Your task to perform on an android device: show emergency info Image 0: 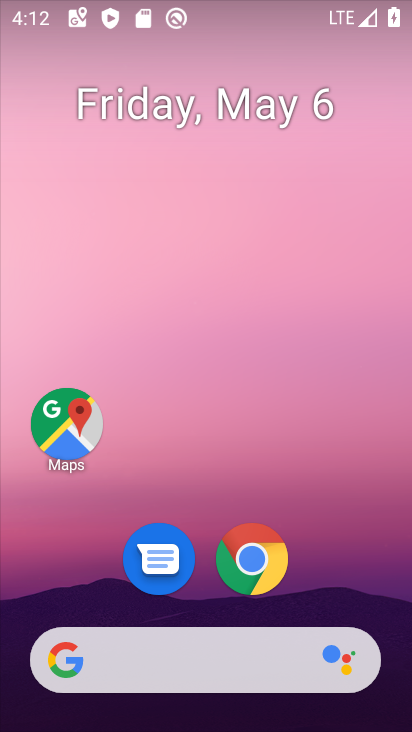
Step 0: drag from (215, 622) to (238, 258)
Your task to perform on an android device: show emergency info Image 1: 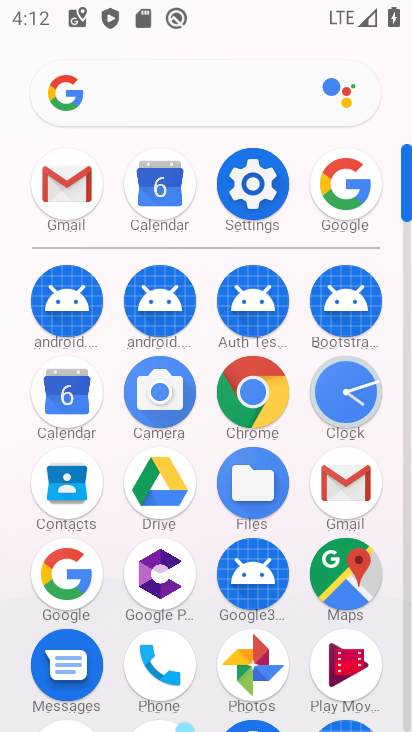
Step 1: drag from (109, 727) to (95, 360)
Your task to perform on an android device: show emergency info Image 2: 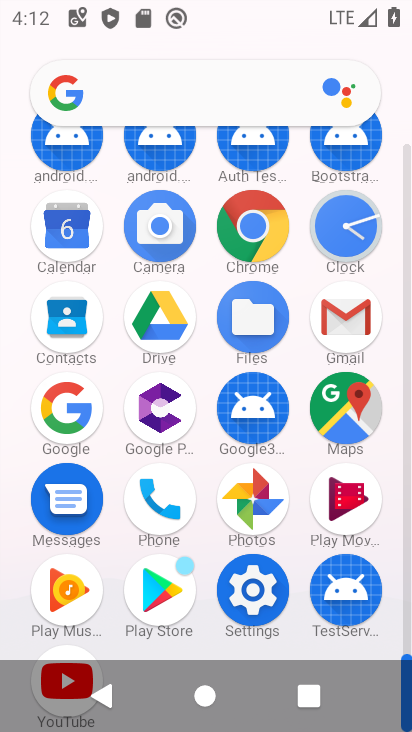
Step 2: click (235, 606)
Your task to perform on an android device: show emergency info Image 3: 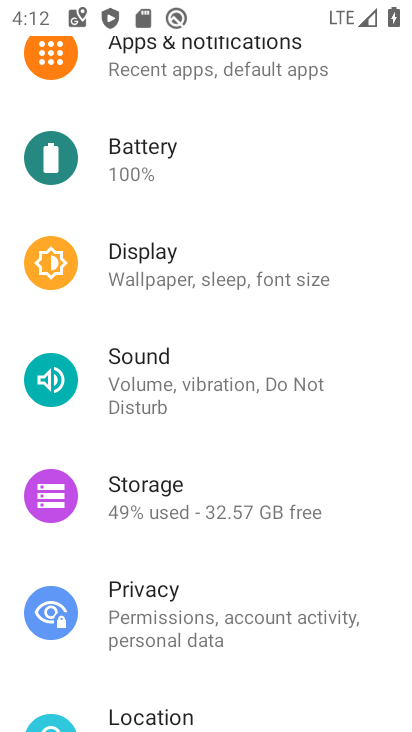
Step 3: drag from (233, 706) to (255, 289)
Your task to perform on an android device: show emergency info Image 4: 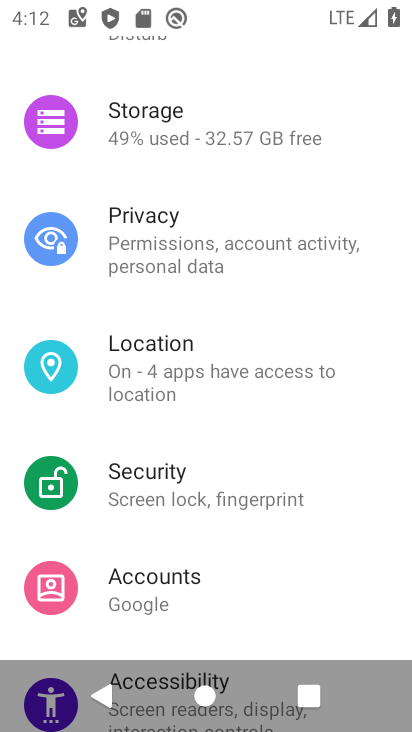
Step 4: drag from (242, 593) to (281, 160)
Your task to perform on an android device: show emergency info Image 5: 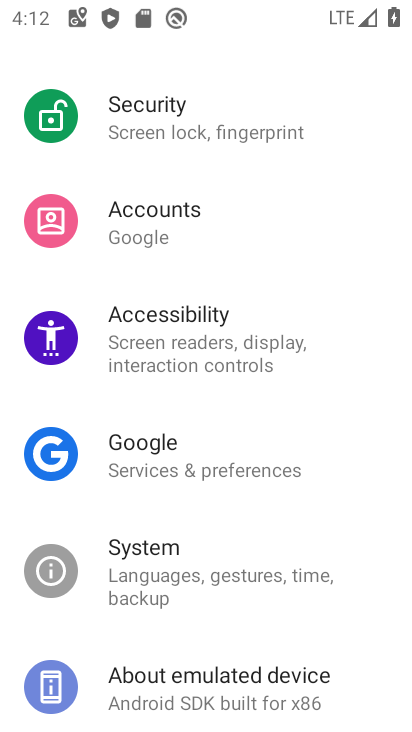
Step 5: drag from (196, 556) to (237, 266)
Your task to perform on an android device: show emergency info Image 6: 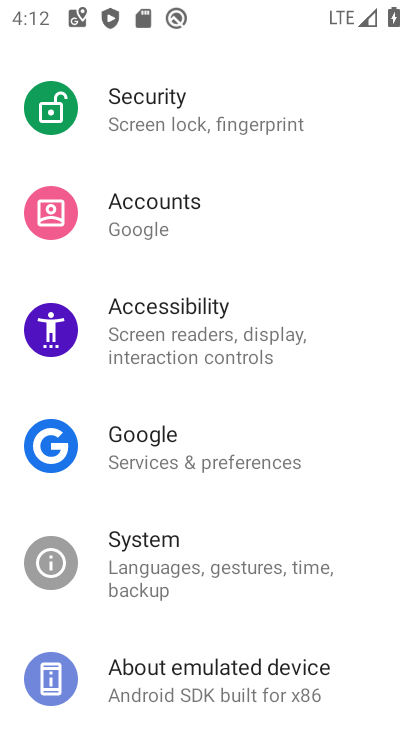
Step 6: click (193, 678)
Your task to perform on an android device: show emergency info Image 7: 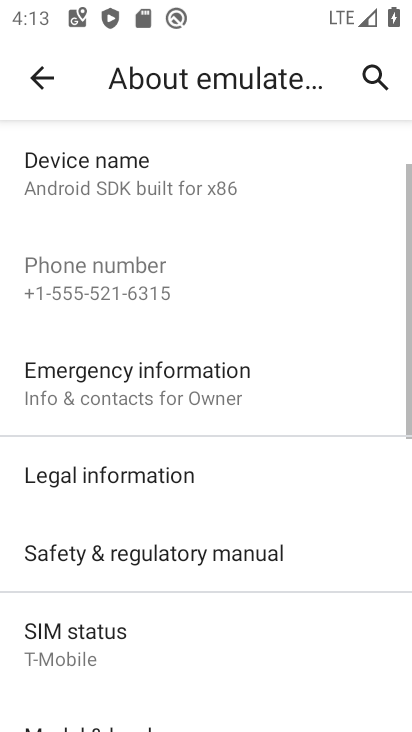
Step 7: click (202, 377)
Your task to perform on an android device: show emergency info Image 8: 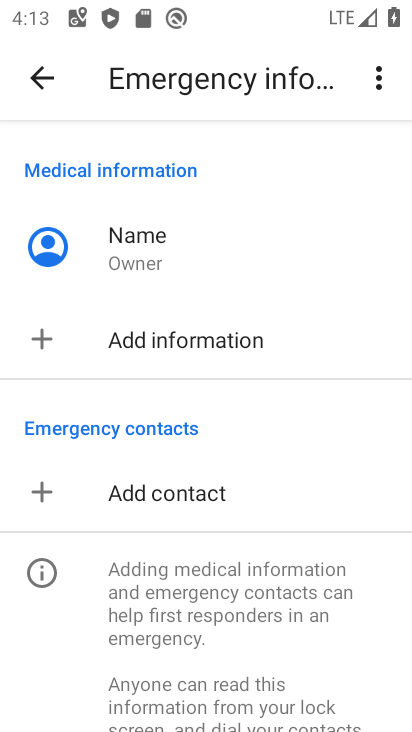
Step 8: task complete